Your task to perform on an android device: Search for sushi restaurants on Maps Image 0: 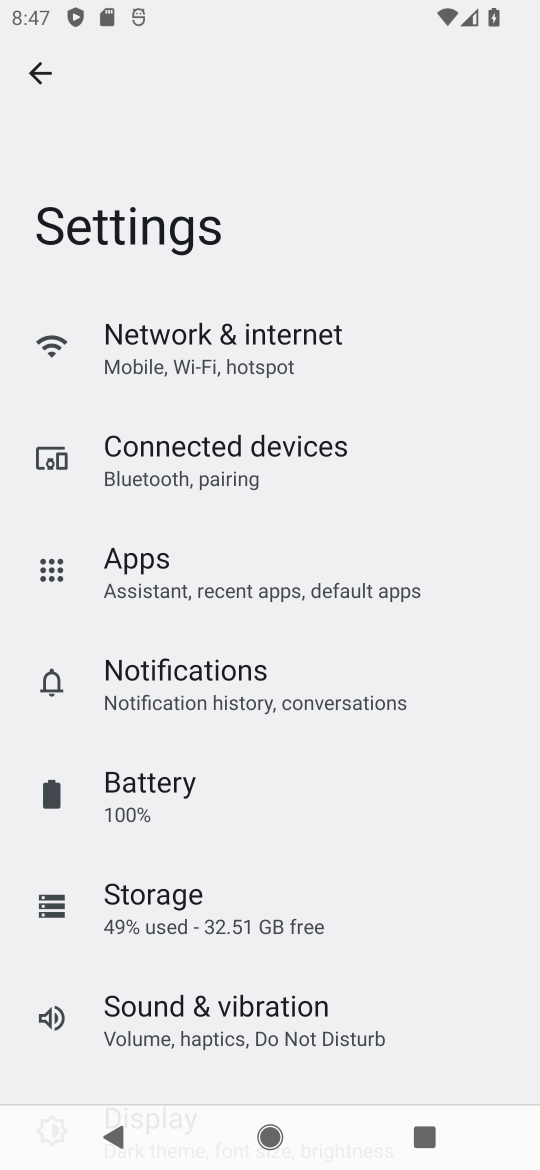
Step 0: press home button
Your task to perform on an android device: Search for sushi restaurants on Maps Image 1: 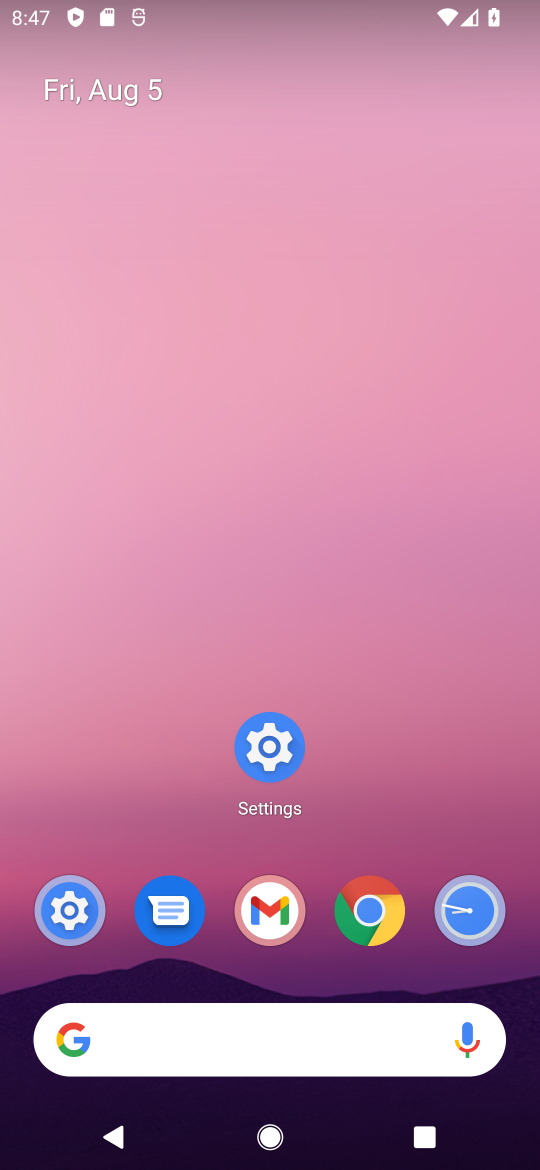
Step 1: drag from (211, 948) to (340, 98)
Your task to perform on an android device: Search for sushi restaurants on Maps Image 2: 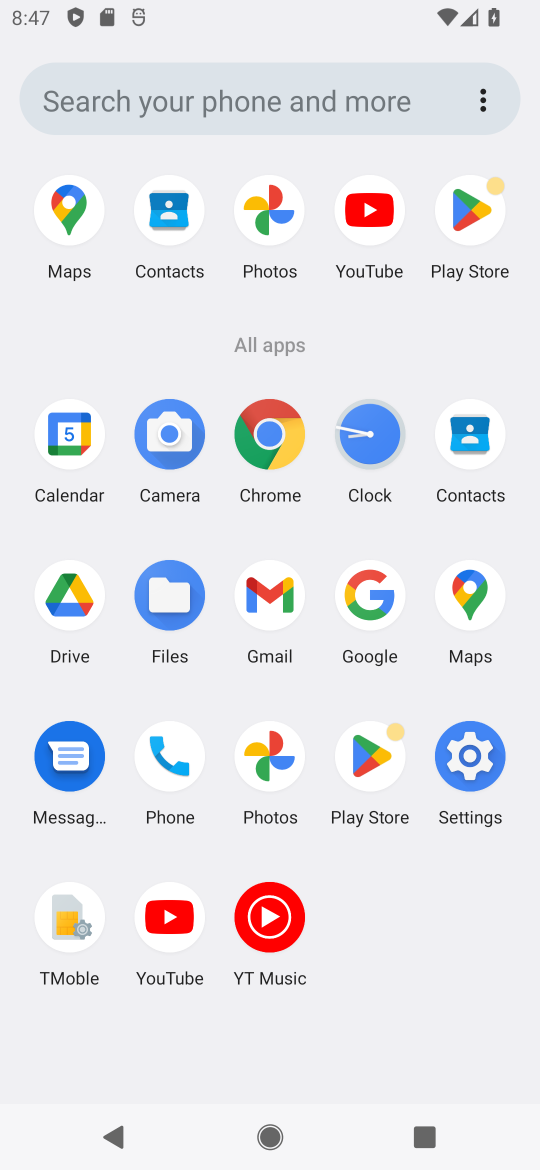
Step 2: click (467, 600)
Your task to perform on an android device: Search for sushi restaurants on Maps Image 3: 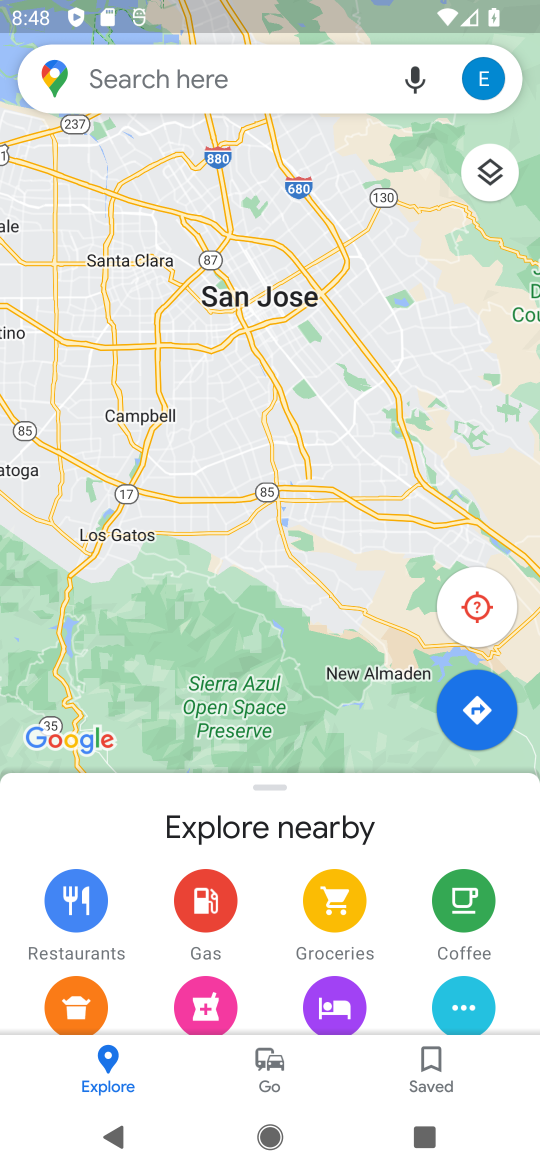
Step 3: click (227, 70)
Your task to perform on an android device: Search for sushi restaurants on Maps Image 4: 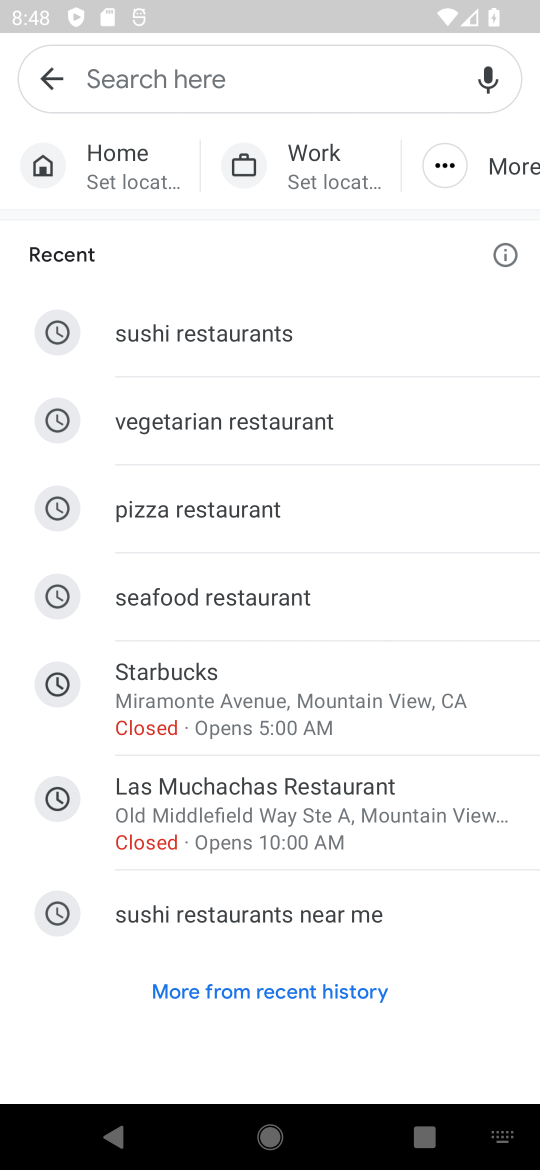
Step 4: click (224, 338)
Your task to perform on an android device: Search for sushi restaurants on Maps Image 5: 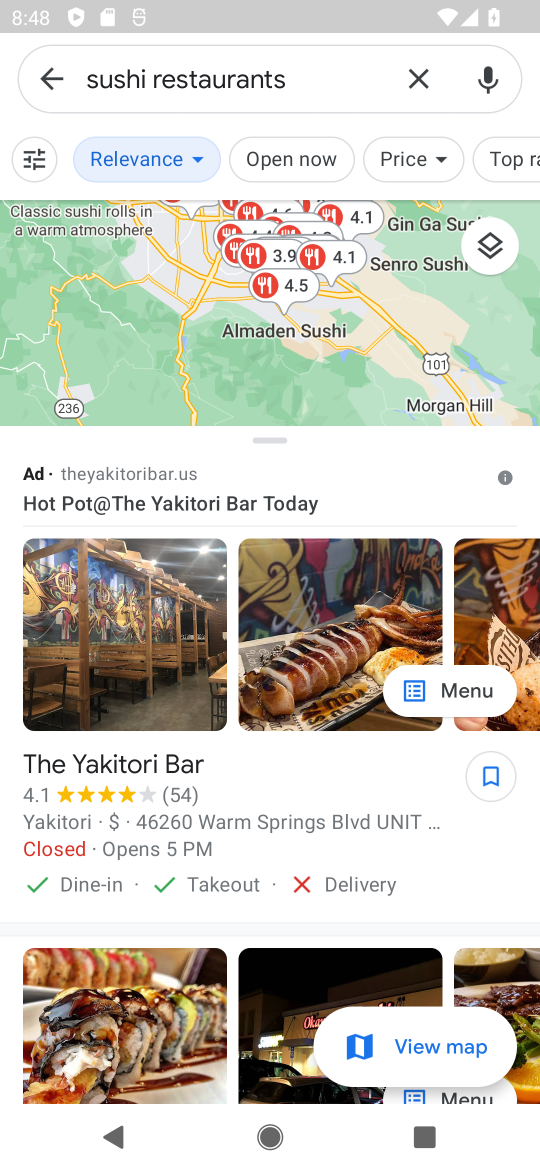
Step 5: task complete